Your task to perform on an android device: change notifications settings Image 0: 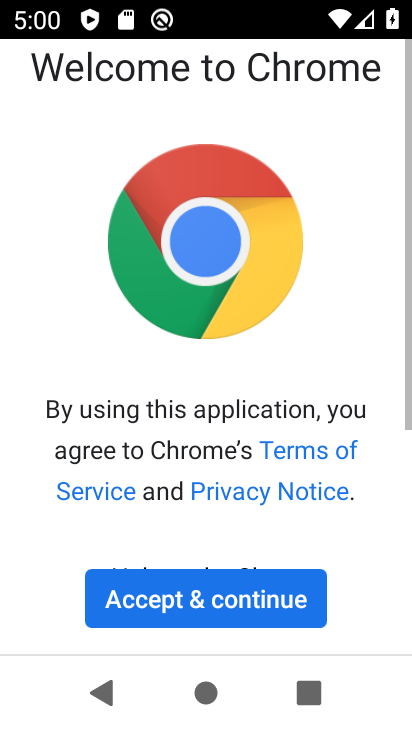
Step 0: press home button
Your task to perform on an android device: change notifications settings Image 1: 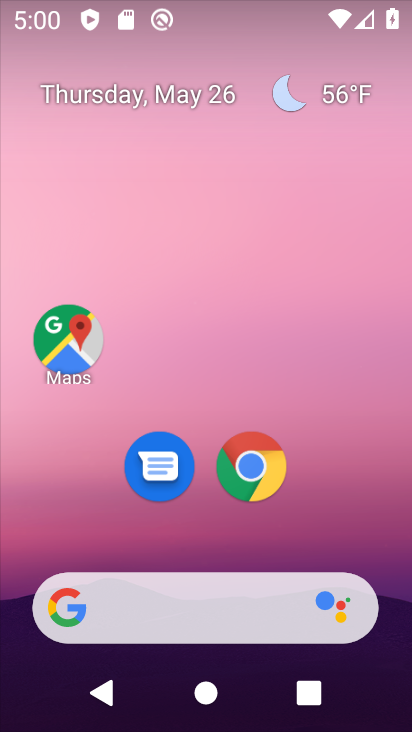
Step 1: drag from (300, 536) to (325, 118)
Your task to perform on an android device: change notifications settings Image 2: 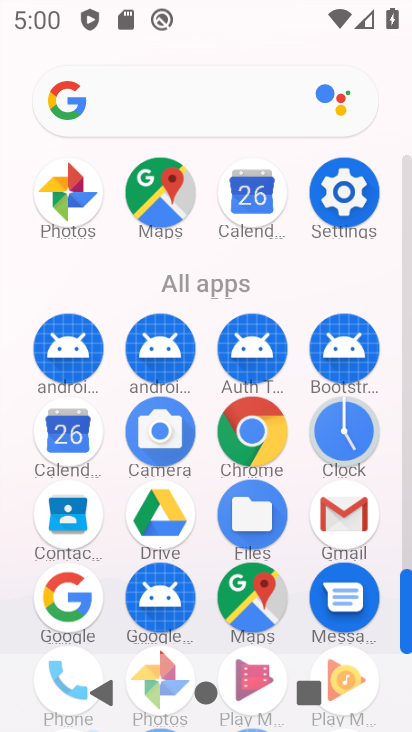
Step 2: click (346, 190)
Your task to perform on an android device: change notifications settings Image 3: 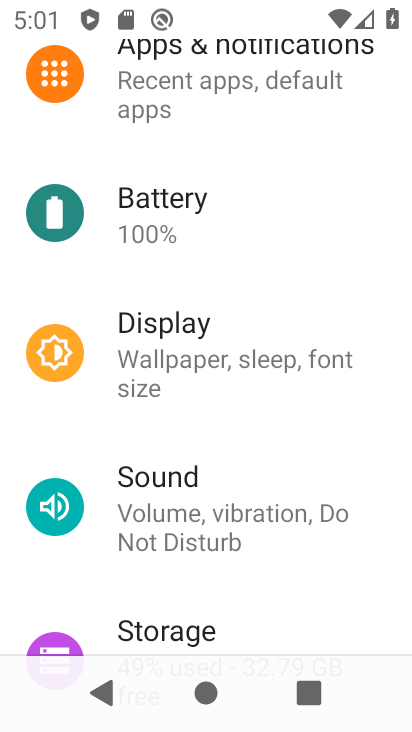
Step 3: click (200, 59)
Your task to perform on an android device: change notifications settings Image 4: 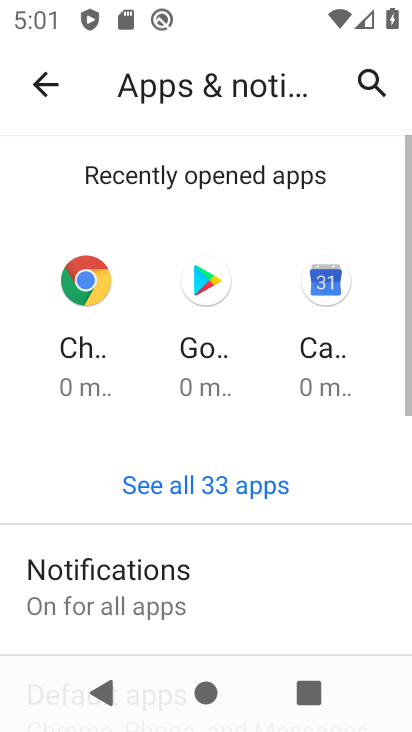
Step 4: click (129, 571)
Your task to perform on an android device: change notifications settings Image 5: 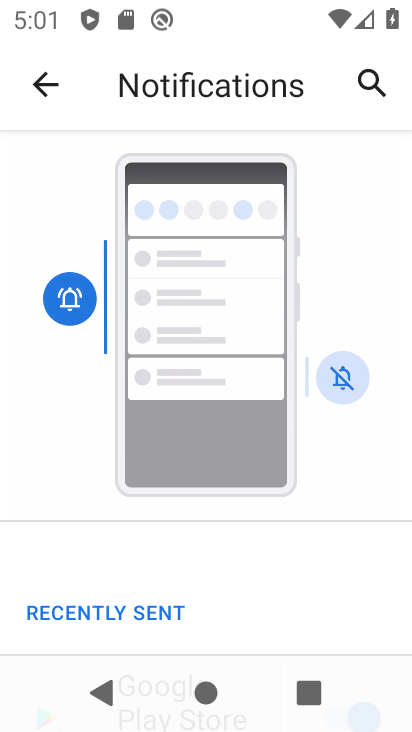
Step 5: drag from (258, 573) to (319, 150)
Your task to perform on an android device: change notifications settings Image 6: 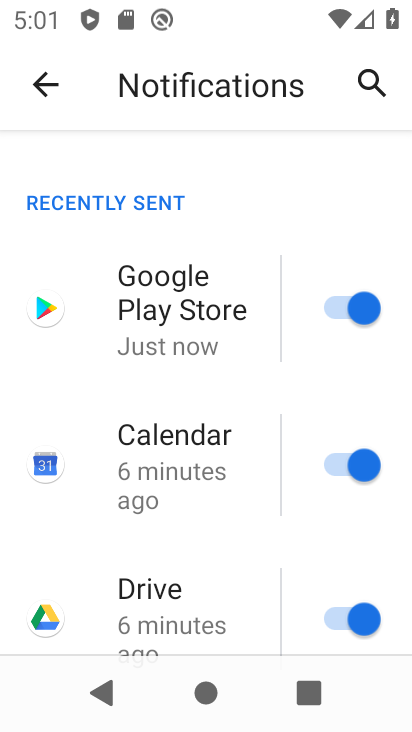
Step 6: drag from (259, 527) to (271, 173)
Your task to perform on an android device: change notifications settings Image 7: 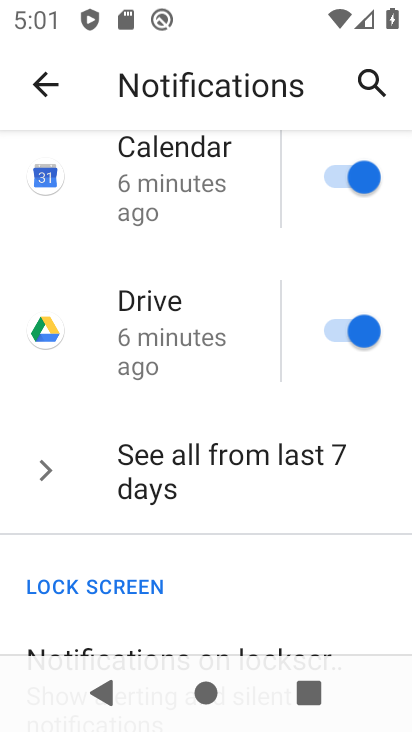
Step 7: drag from (238, 495) to (238, 271)
Your task to perform on an android device: change notifications settings Image 8: 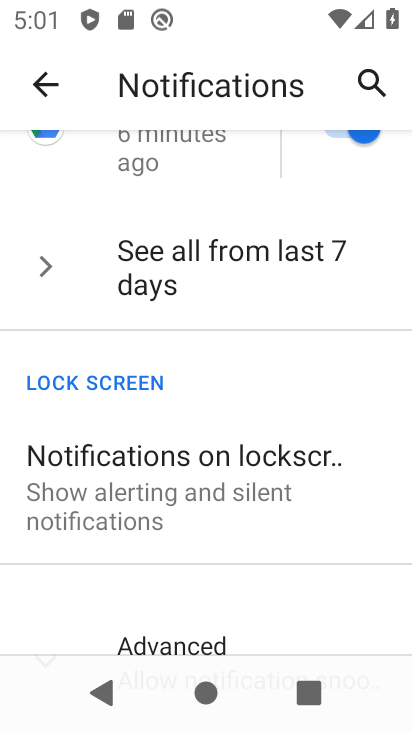
Step 8: drag from (265, 555) to (261, 330)
Your task to perform on an android device: change notifications settings Image 9: 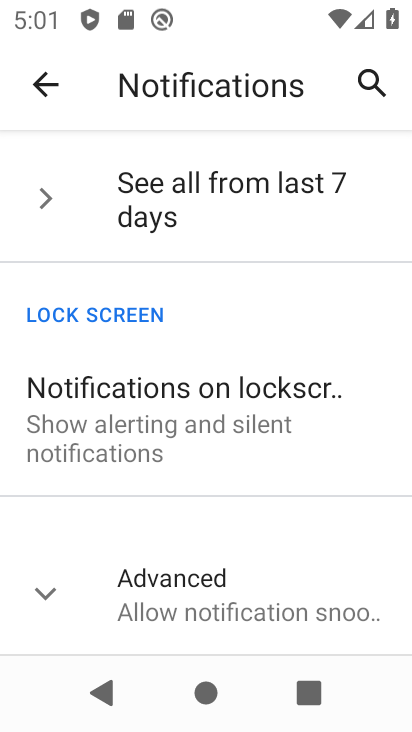
Step 9: click (195, 410)
Your task to perform on an android device: change notifications settings Image 10: 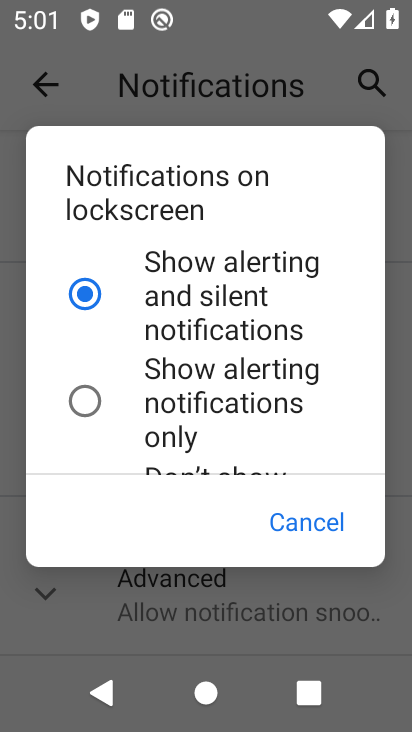
Step 10: click (179, 395)
Your task to perform on an android device: change notifications settings Image 11: 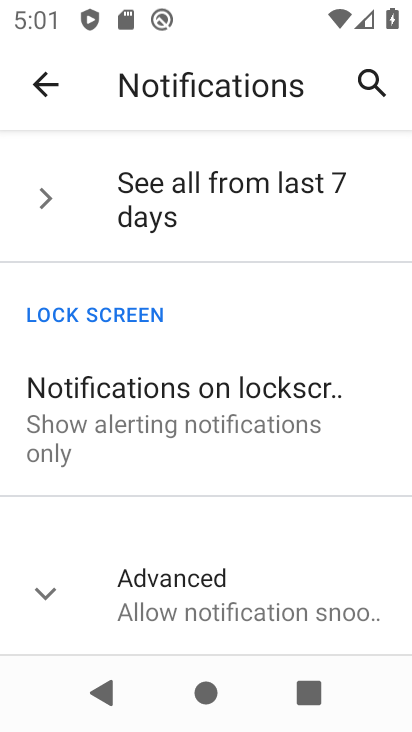
Step 11: task complete